Your task to perform on an android device: toggle wifi Image 0: 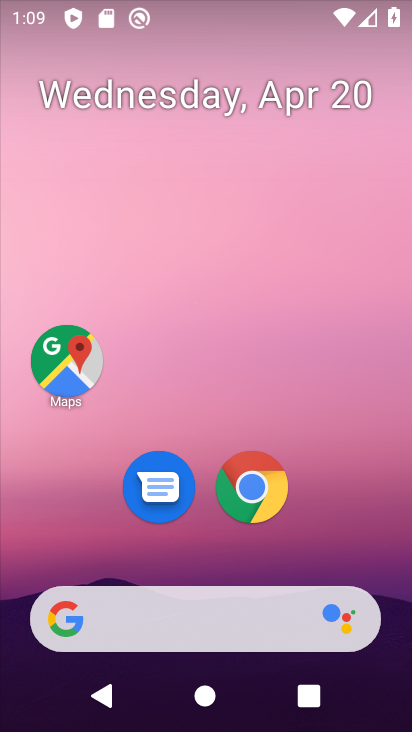
Step 0: drag from (277, 1) to (288, 412)
Your task to perform on an android device: toggle wifi Image 1: 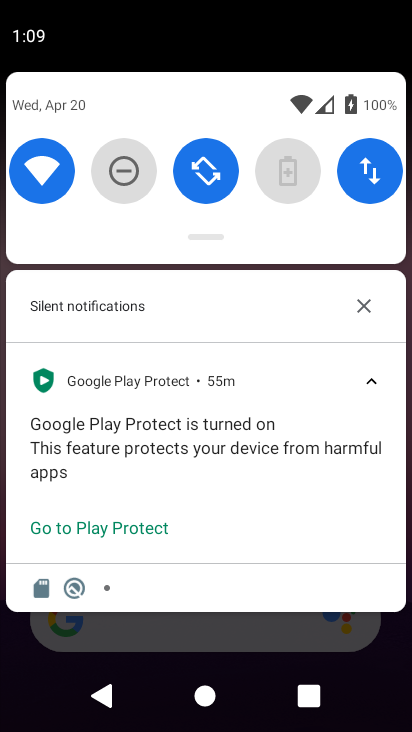
Step 1: drag from (242, 210) to (248, 635)
Your task to perform on an android device: toggle wifi Image 2: 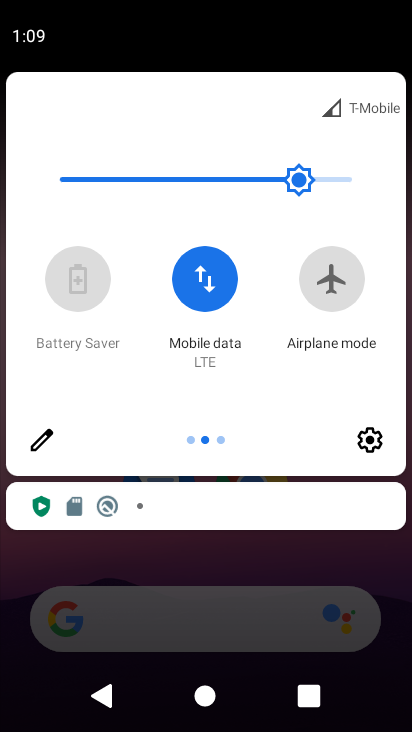
Step 2: drag from (354, 353) to (55, 353)
Your task to perform on an android device: toggle wifi Image 3: 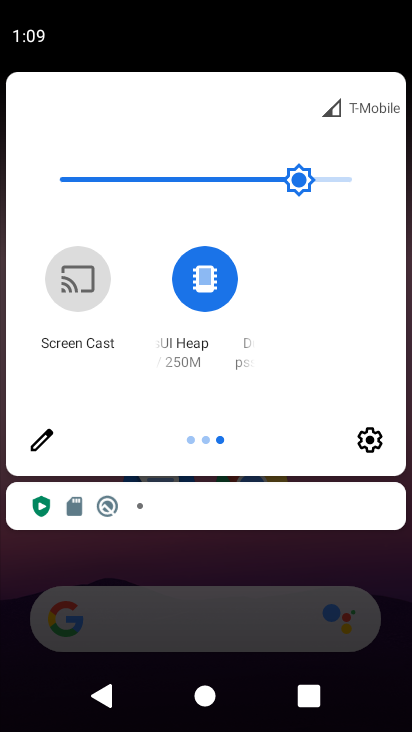
Step 3: drag from (49, 349) to (389, 368)
Your task to perform on an android device: toggle wifi Image 4: 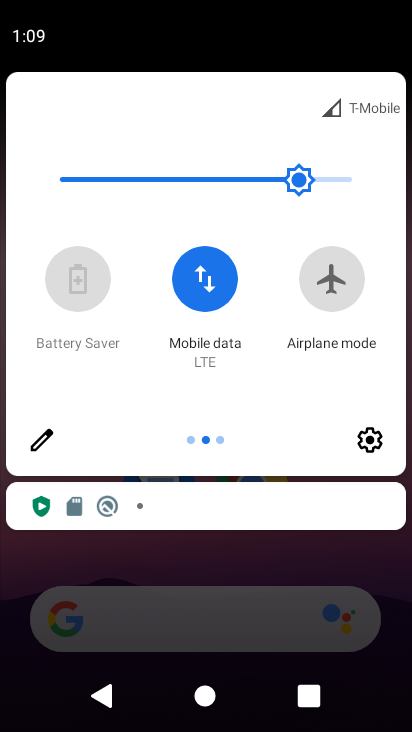
Step 4: drag from (111, 380) to (397, 398)
Your task to perform on an android device: toggle wifi Image 5: 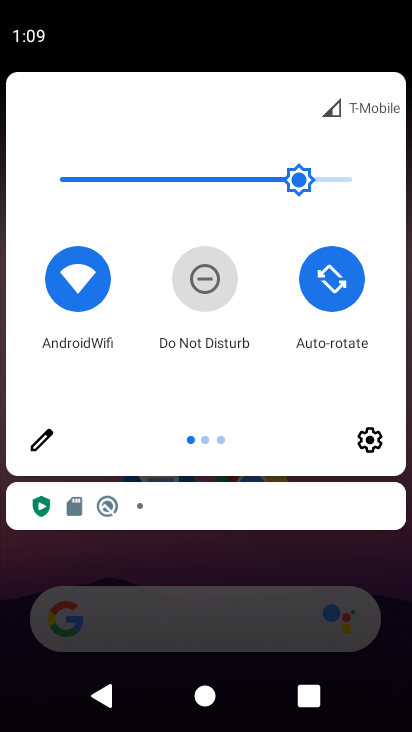
Step 5: click (75, 276)
Your task to perform on an android device: toggle wifi Image 6: 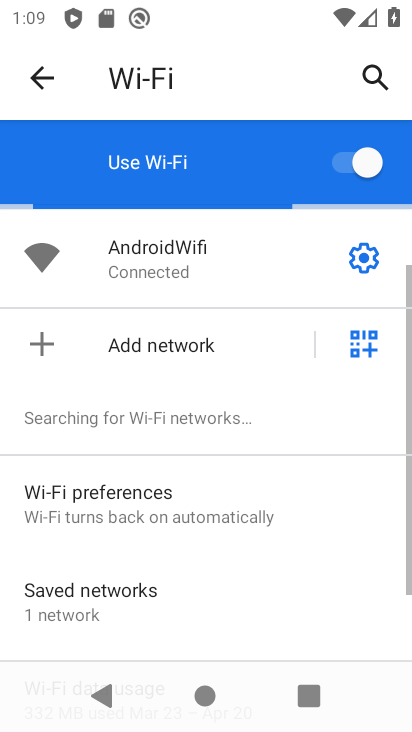
Step 6: click (352, 182)
Your task to perform on an android device: toggle wifi Image 7: 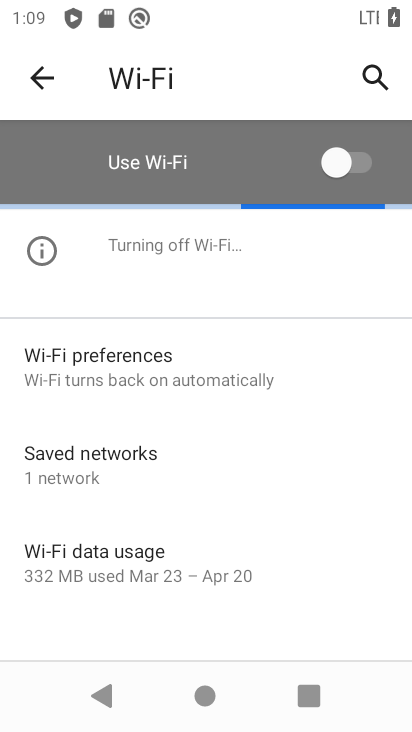
Step 7: task complete